Your task to perform on an android device: Open my contact list Image 0: 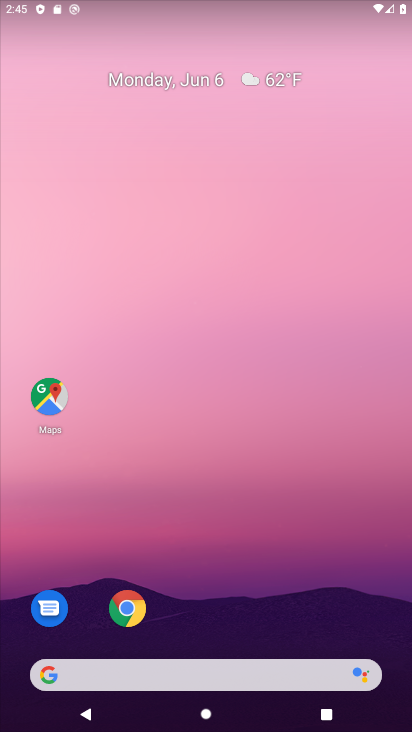
Step 0: drag from (255, 597) to (369, 85)
Your task to perform on an android device: Open my contact list Image 1: 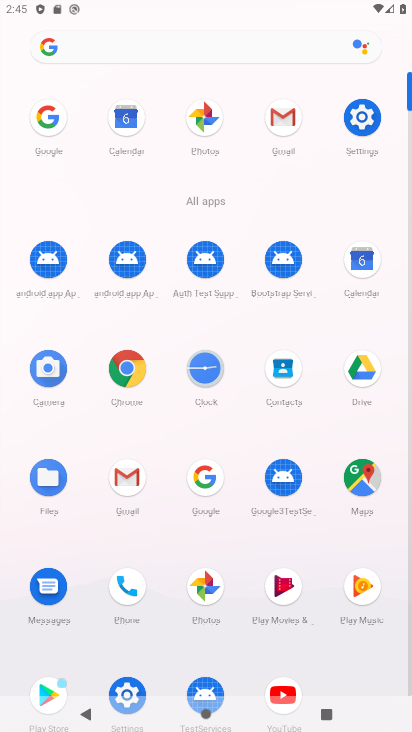
Step 1: click (278, 372)
Your task to perform on an android device: Open my contact list Image 2: 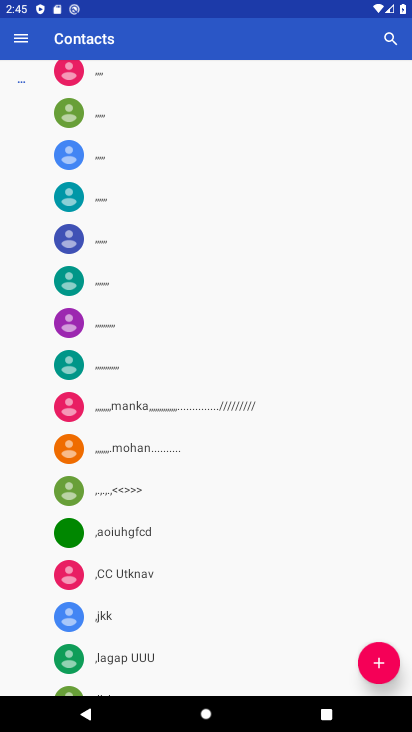
Step 2: task complete